Your task to perform on an android device: Go to Android settings Image 0: 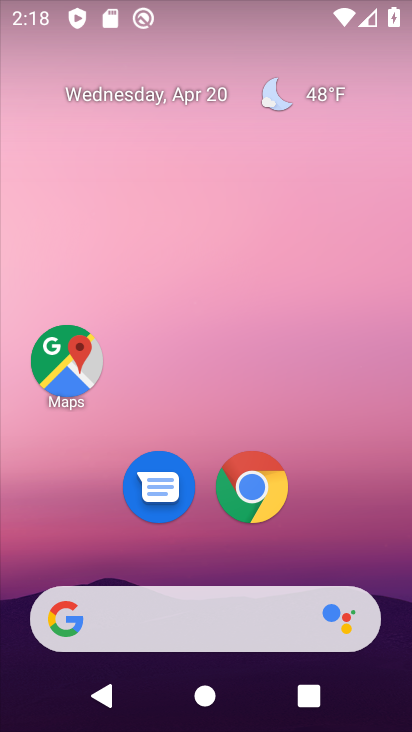
Step 0: drag from (169, 576) to (220, 160)
Your task to perform on an android device: Go to Android settings Image 1: 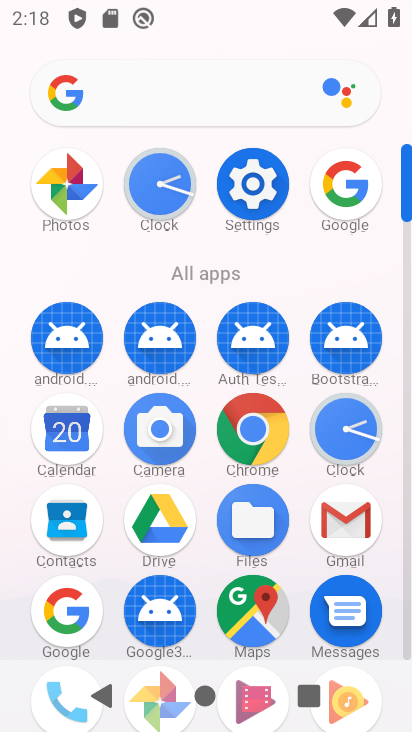
Step 1: click (250, 189)
Your task to perform on an android device: Go to Android settings Image 2: 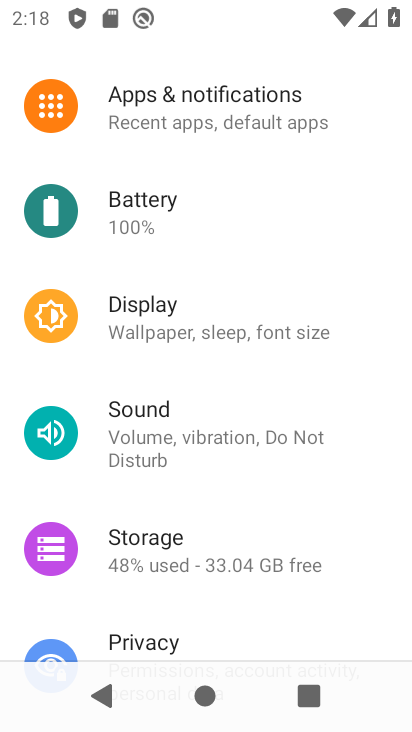
Step 2: drag from (193, 624) to (200, 246)
Your task to perform on an android device: Go to Android settings Image 3: 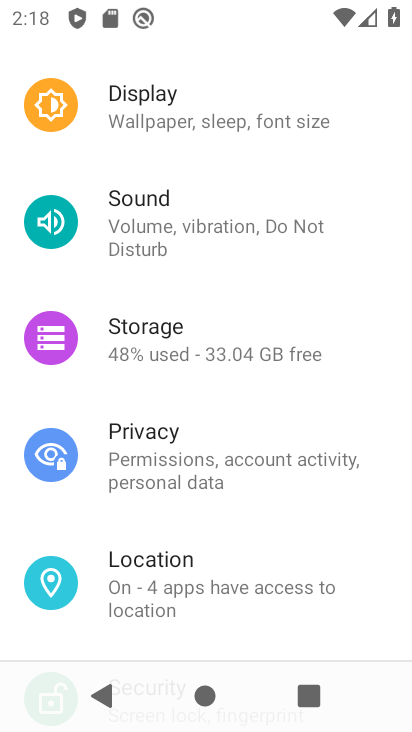
Step 3: drag from (184, 555) to (184, 265)
Your task to perform on an android device: Go to Android settings Image 4: 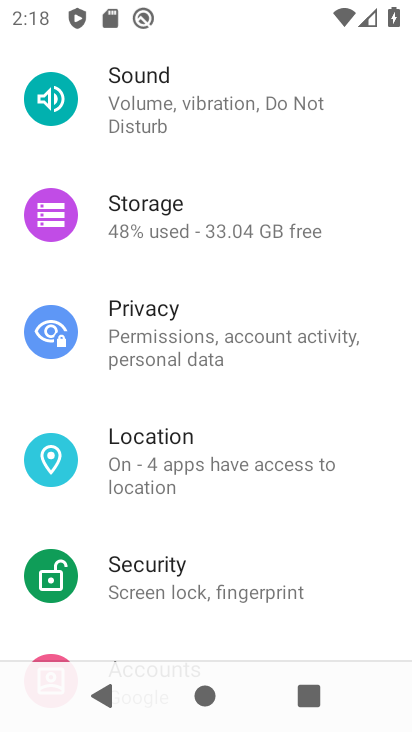
Step 4: drag from (182, 642) to (197, 334)
Your task to perform on an android device: Go to Android settings Image 5: 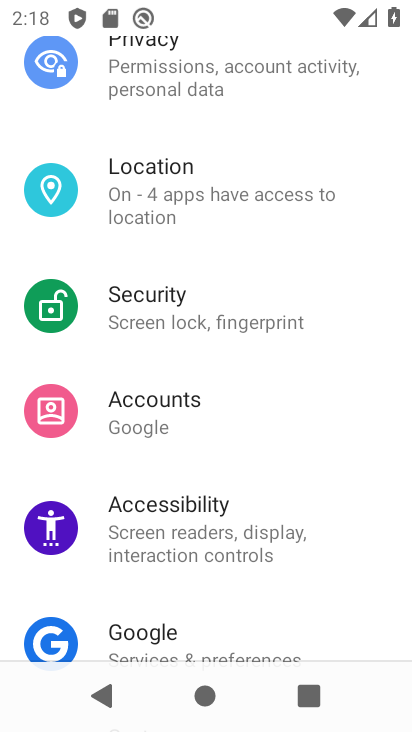
Step 5: drag from (187, 625) to (202, 272)
Your task to perform on an android device: Go to Android settings Image 6: 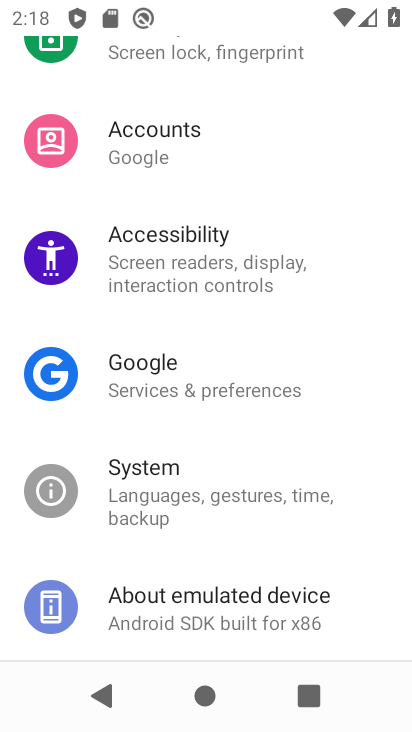
Step 6: drag from (197, 625) to (190, 371)
Your task to perform on an android device: Go to Android settings Image 7: 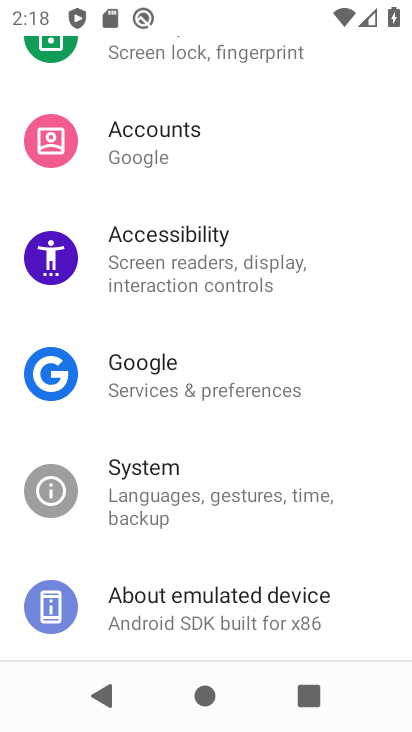
Step 7: click (185, 609)
Your task to perform on an android device: Go to Android settings Image 8: 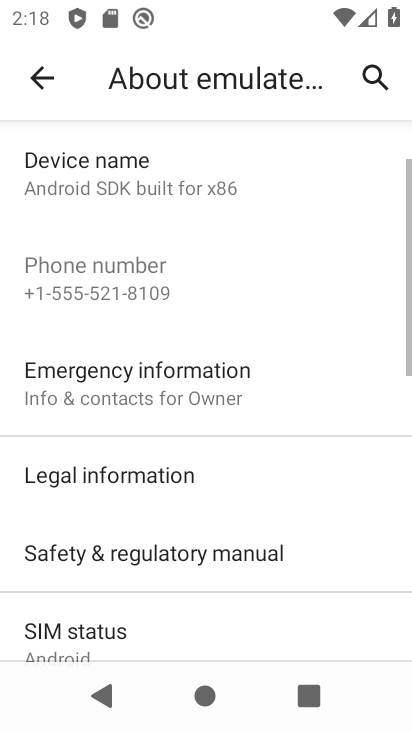
Step 8: task complete